Your task to perform on an android device: Open the map Image 0: 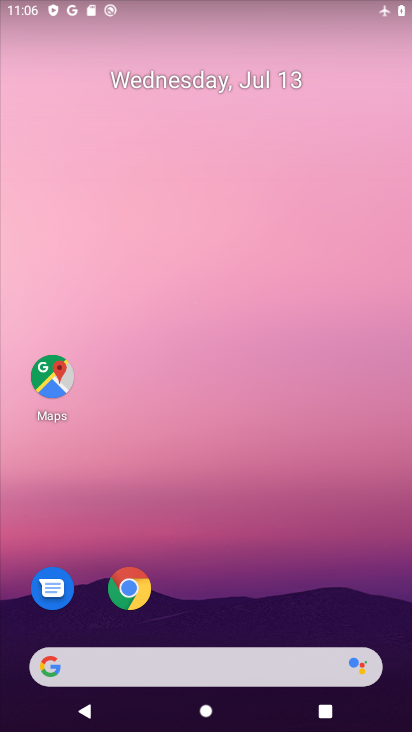
Step 0: click (51, 375)
Your task to perform on an android device: Open the map Image 1: 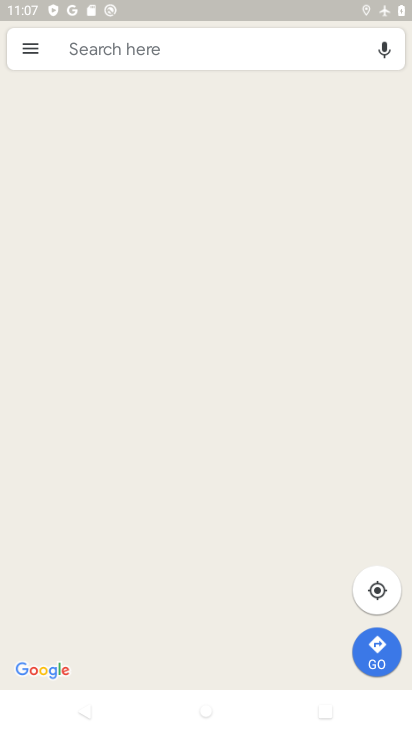
Step 1: task complete